Your task to perform on an android device: toggle sleep mode Image 0: 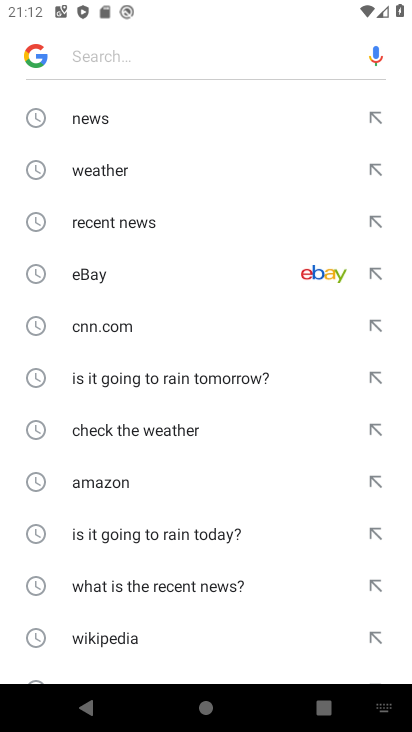
Step 0: press home button
Your task to perform on an android device: toggle sleep mode Image 1: 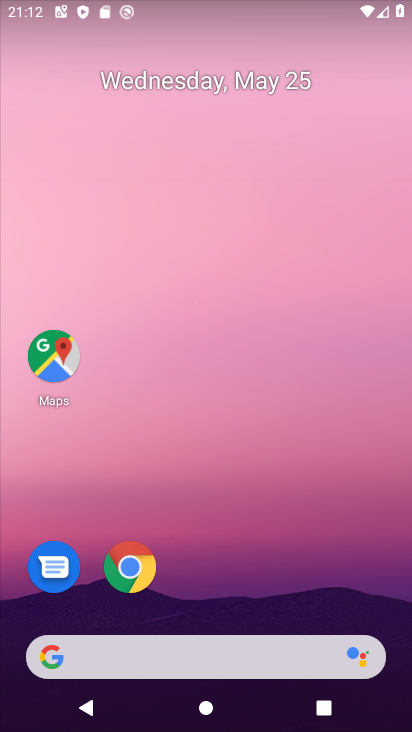
Step 1: drag from (262, 512) to (246, 21)
Your task to perform on an android device: toggle sleep mode Image 2: 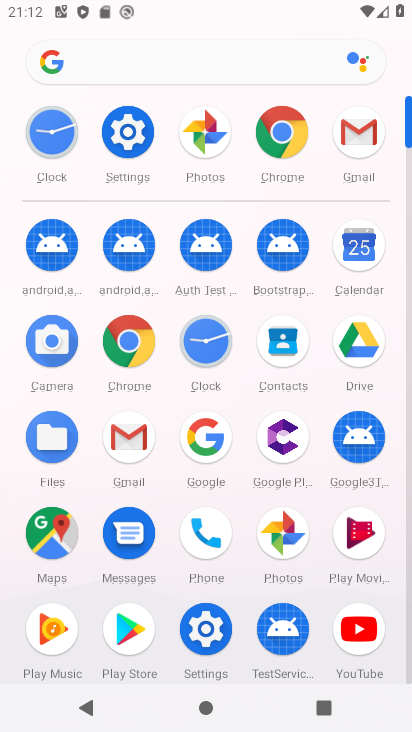
Step 2: click (128, 134)
Your task to perform on an android device: toggle sleep mode Image 3: 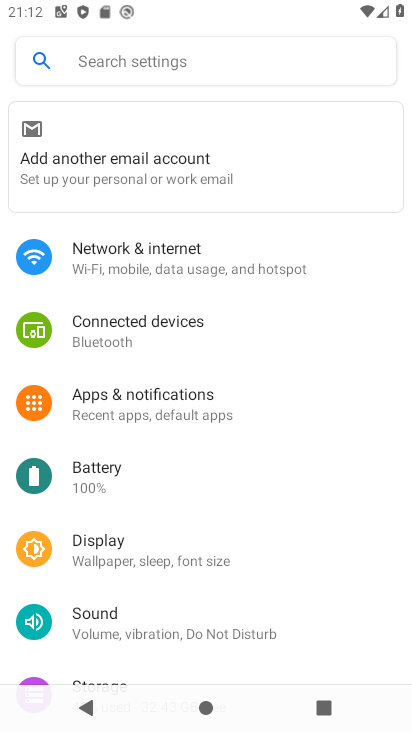
Step 3: click (79, 557)
Your task to perform on an android device: toggle sleep mode Image 4: 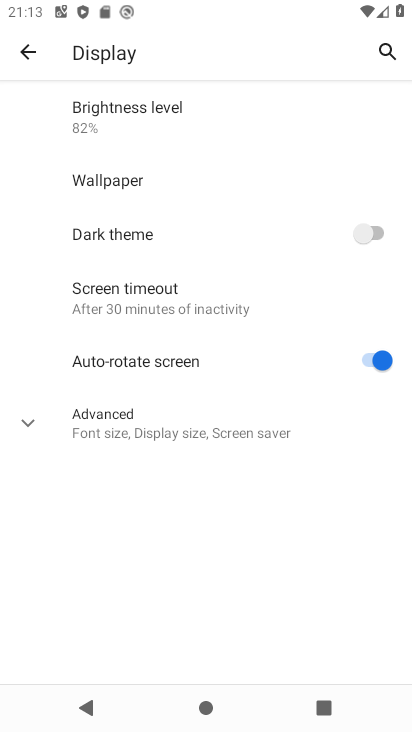
Step 4: click (24, 412)
Your task to perform on an android device: toggle sleep mode Image 5: 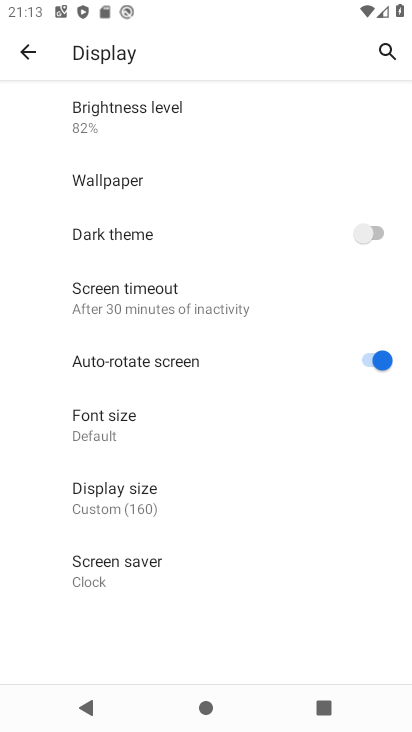
Step 5: task complete